Your task to perform on an android device: Open Youtube and go to the subscriptions tab Image 0: 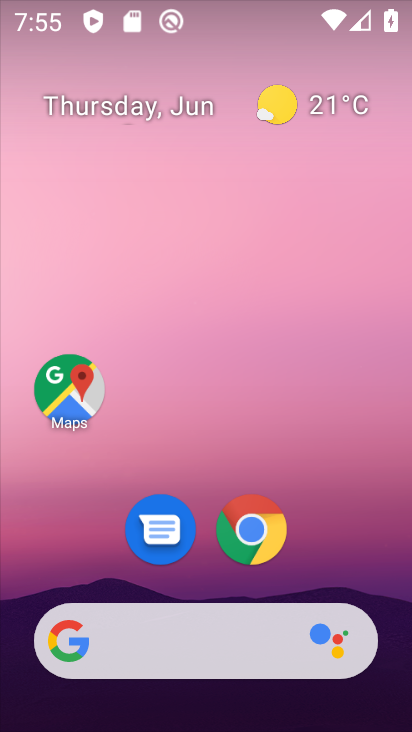
Step 0: drag from (379, 645) to (354, 100)
Your task to perform on an android device: Open Youtube and go to the subscriptions tab Image 1: 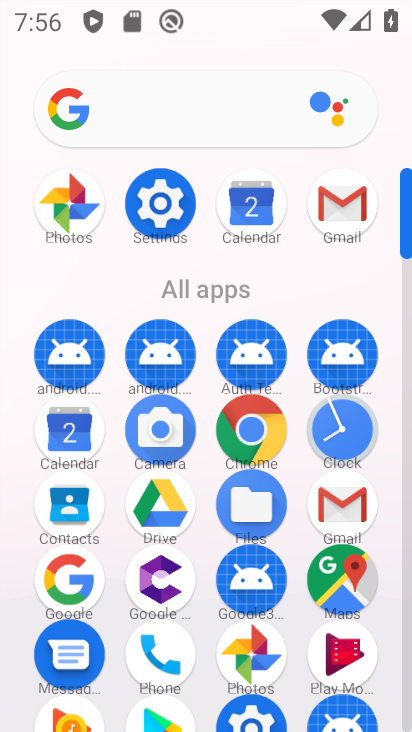
Step 1: drag from (291, 698) to (257, 373)
Your task to perform on an android device: Open Youtube and go to the subscriptions tab Image 2: 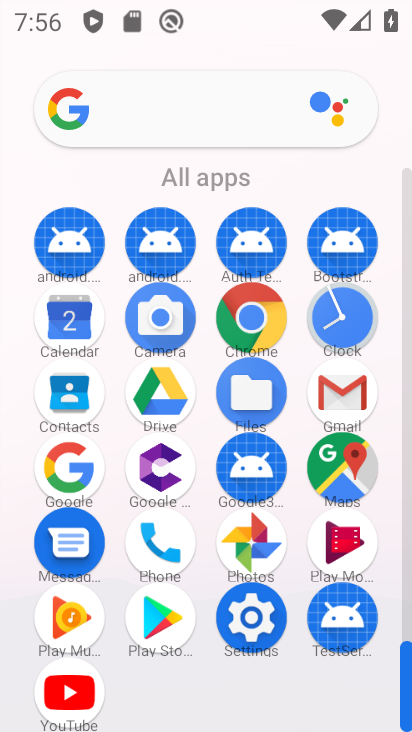
Step 2: drag from (117, 632) to (105, 448)
Your task to perform on an android device: Open Youtube and go to the subscriptions tab Image 3: 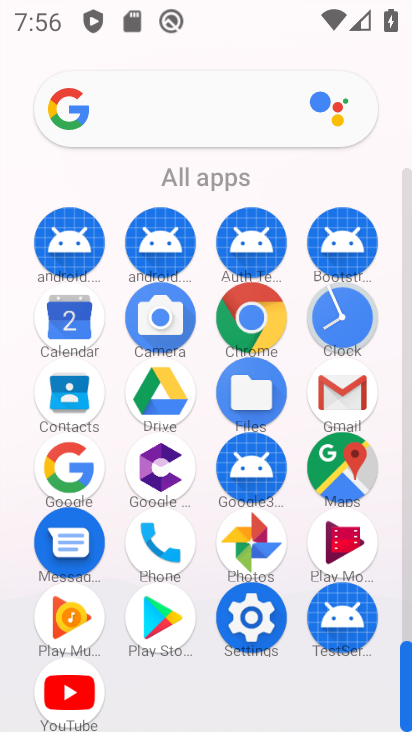
Step 3: click (85, 678)
Your task to perform on an android device: Open Youtube and go to the subscriptions tab Image 4: 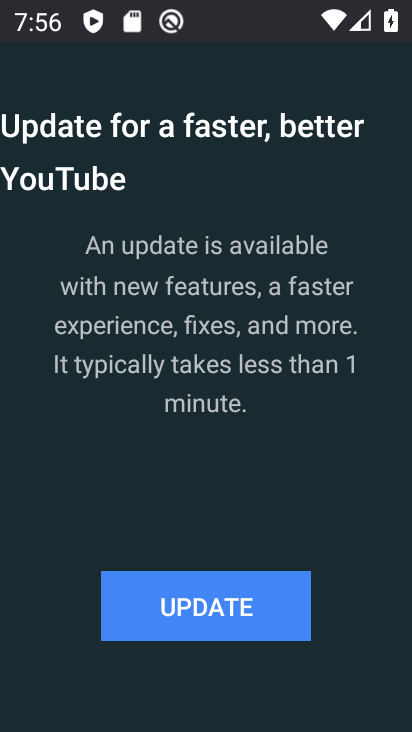
Step 4: click (218, 624)
Your task to perform on an android device: Open Youtube and go to the subscriptions tab Image 5: 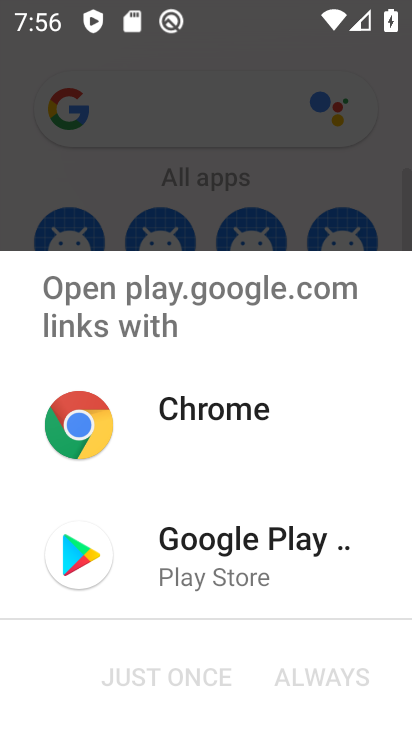
Step 5: click (186, 542)
Your task to perform on an android device: Open Youtube and go to the subscriptions tab Image 6: 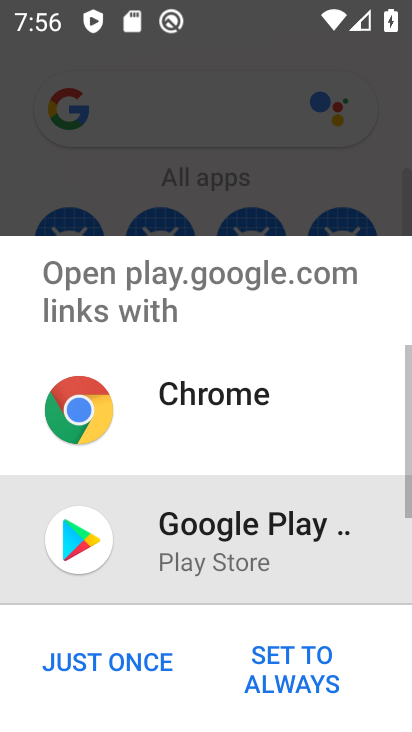
Step 6: click (125, 655)
Your task to perform on an android device: Open Youtube and go to the subscriptions tab Image 7: 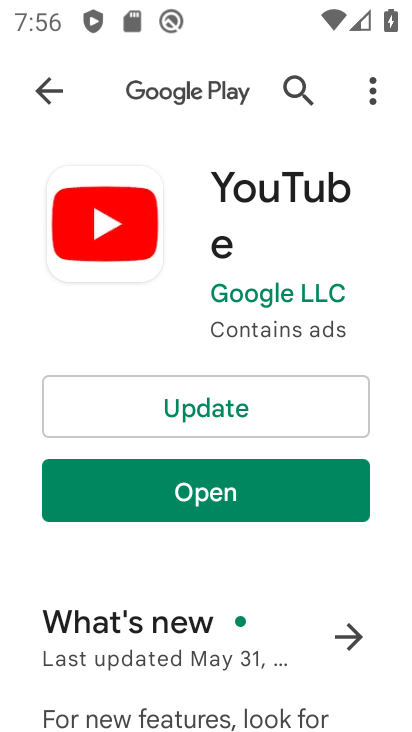
Step 7: click (247, 412)
Your task to perform on an android device: Open Youtube and go to the subscriptions tab Image 8: 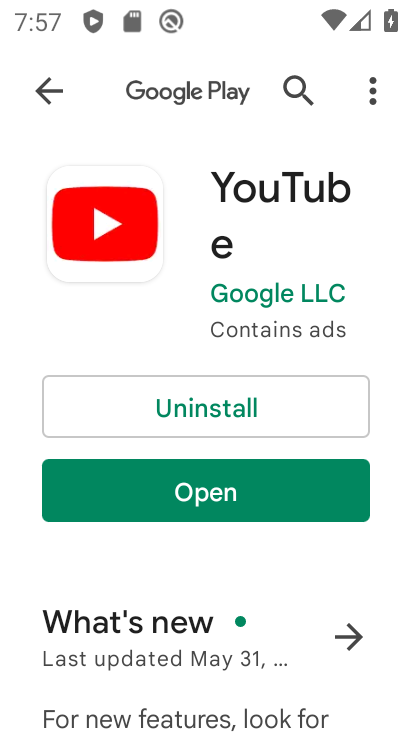
Step 8: click (243, 493)
Your task to perform on an android device: Open Youtube and go to the subscriptions tab Image 9: 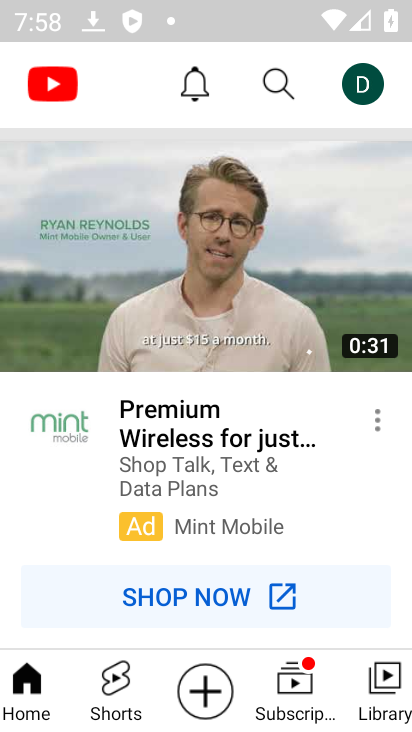
Step 9: drag from (321, 540) to (311, 263)
Your task to perform on an android device: Open Youtube and go to the subscriptions tab Image 10: 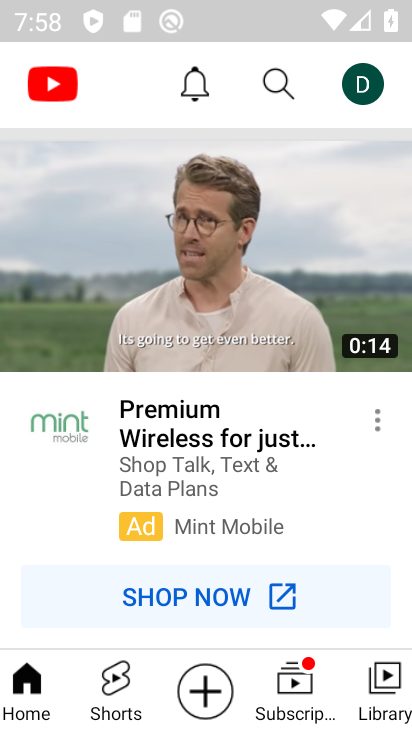
Step 10: click (308, 695)
Your task to perform on an android device: Open Youtube and go to the subscriptions tab Image 11: 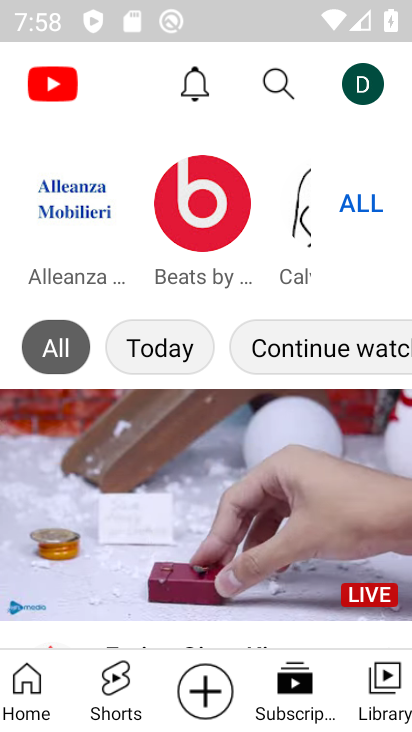
Step 11: task complete